Your task to perform on an android device: open app "DoorDash - Dasher" (install if not already installed), go to login, and select forgot password Image 0: 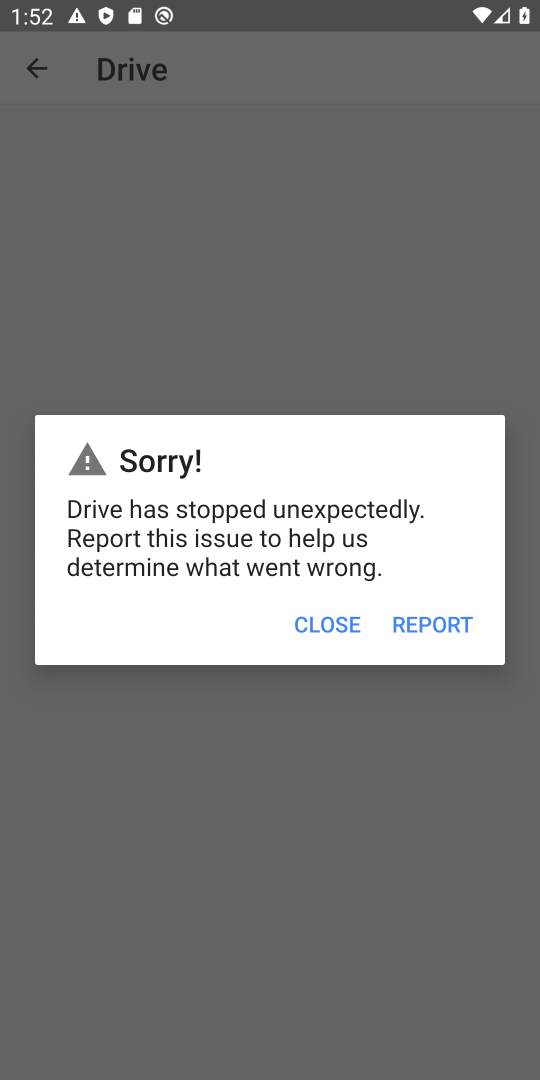
Step 0: press home button
Your task to perform on an android device: open app "DoorDash - Dasher" (install if not already installed), go to login, and select forgot password Image 1: 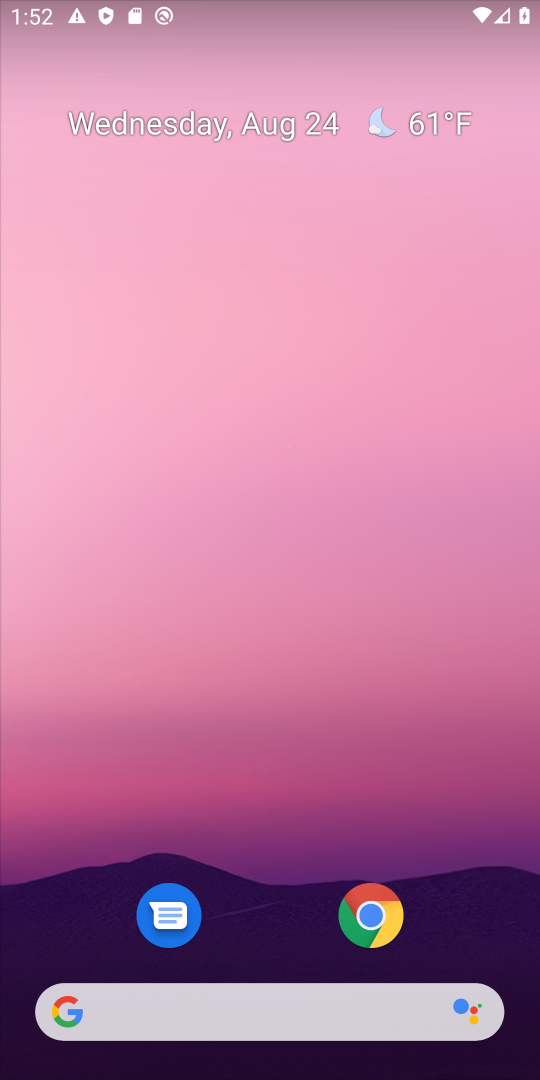
Step 1: drag from (240, 860) to (272, 351)
Your task to perform on an android device: open app "DoorDash - Dasher" (install if not already installed), go to login, and select forgot password Image 2: 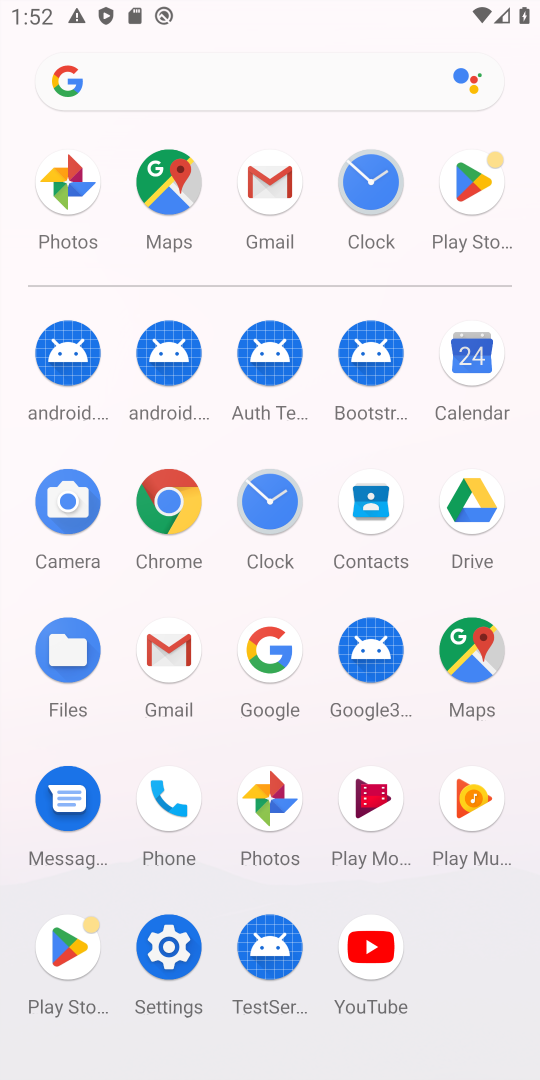
Step 2: click (480, 213)
Your task to perform on an android device: open app "DoorDash - Dasher" (install if not already installed), go to login, and select forgot password Image 3: 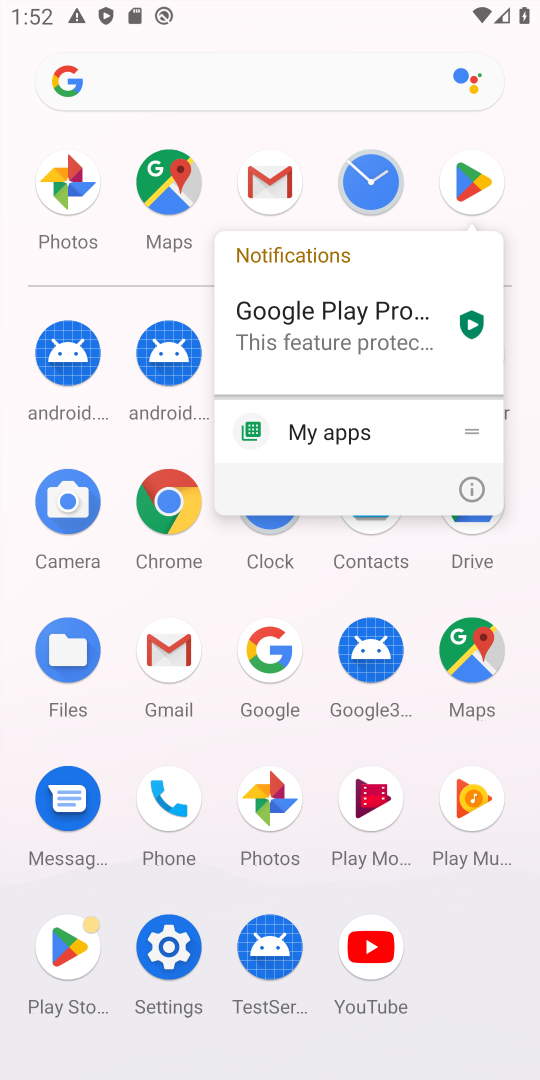
Step 3: click (474, 193)
Your task to perform on an android device: open app "DoorDash - Dasher" (install if not already installed), go to login, and select forgot password Image 4: 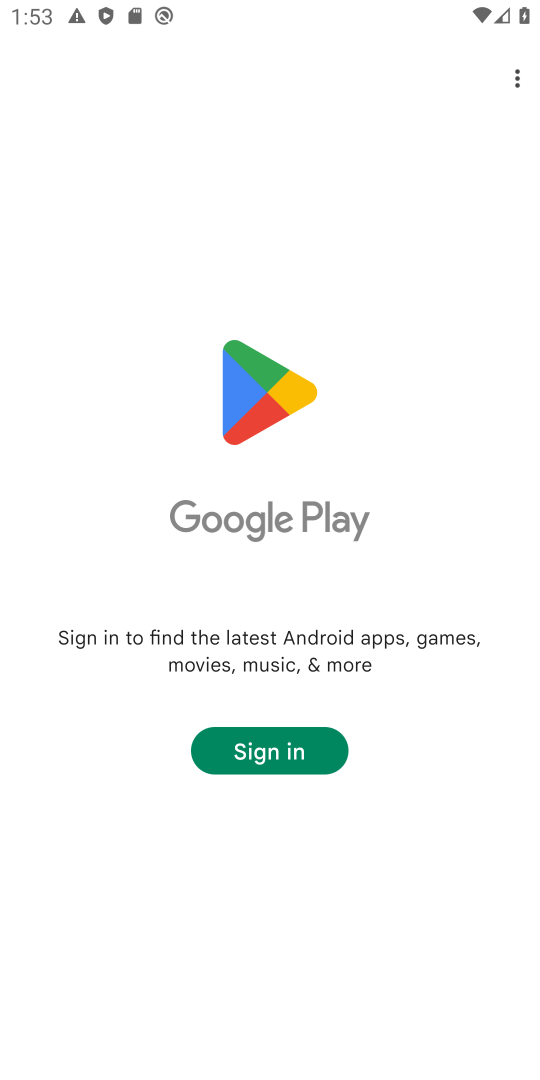
Step 4: task complete